Your task to perform on an android device: allow cookies in the chrome app Image 0: 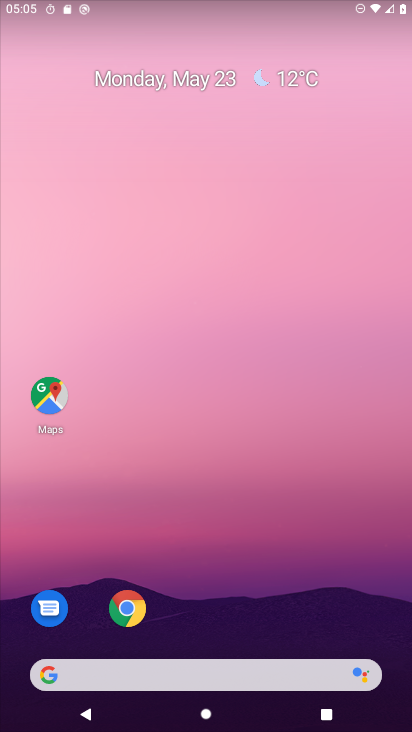
Step 0: click (131, 603)
Your task to perform on an android device: allow cookies in the chrome app Image 1: 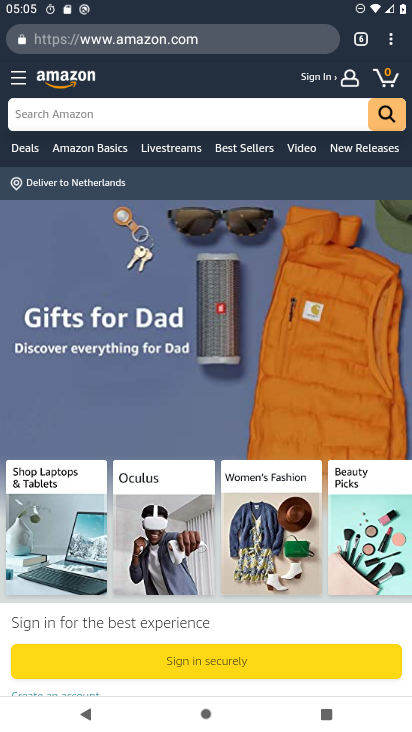
Step 1: click (391, 38)
Your task to perform on an android device: allow cookies in the chrome app Image 2: 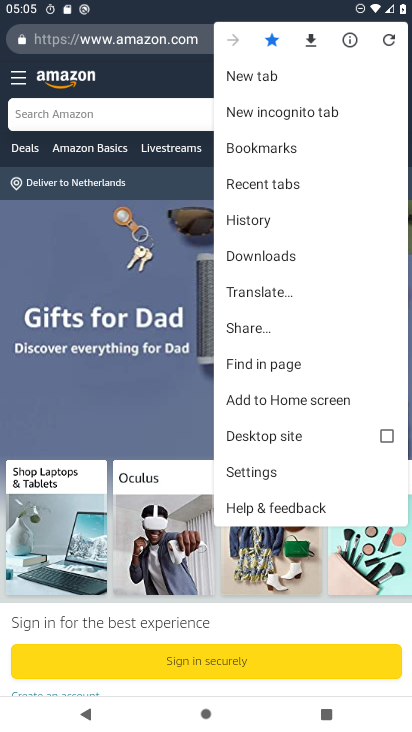
Step 2: click (292, 459)
Your task to perform on an android device: allow cookies in the chrome app Image 3: 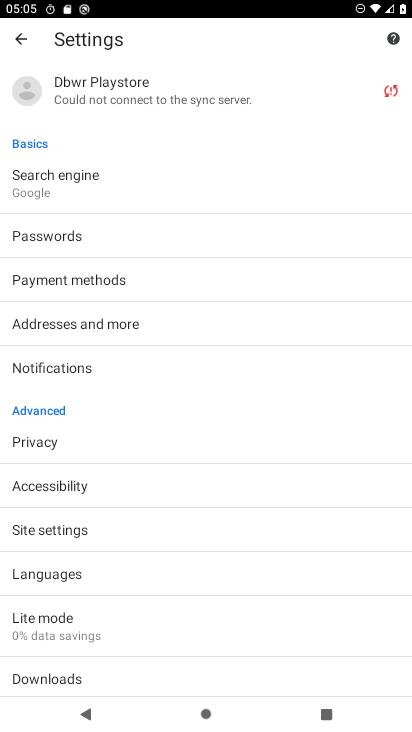
Step 3: click (143, 535)
Your task to perform on an android device: allow cookies in the chrome app Image 4: 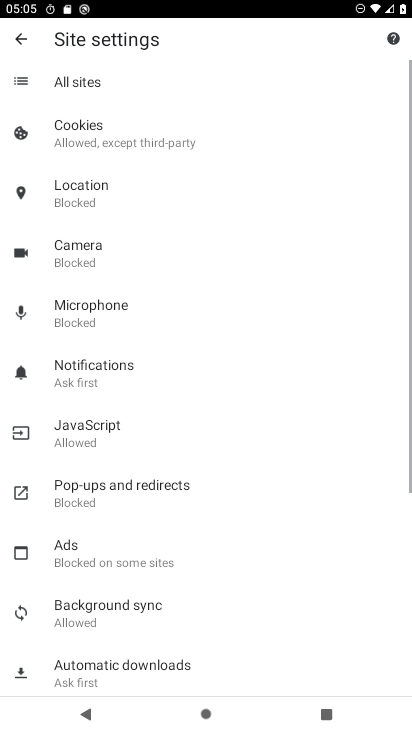
Step 4: click (203, 135)
Your task to perform on an android device: allow cookies in the chrome app Image 5: 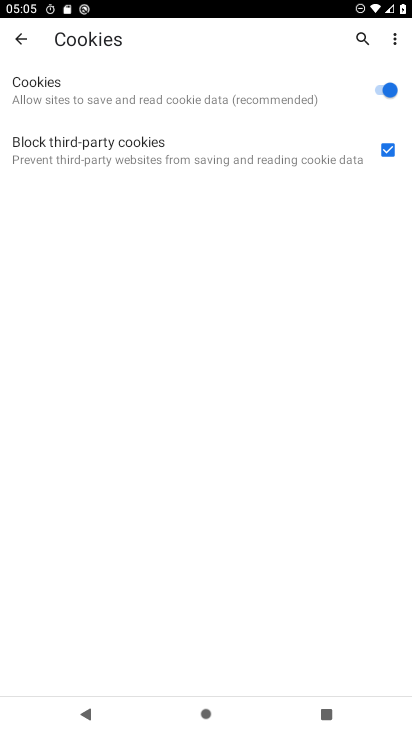
Step 5: task complete